Your task to perform on an android device: change alarm snooze length Image 0: 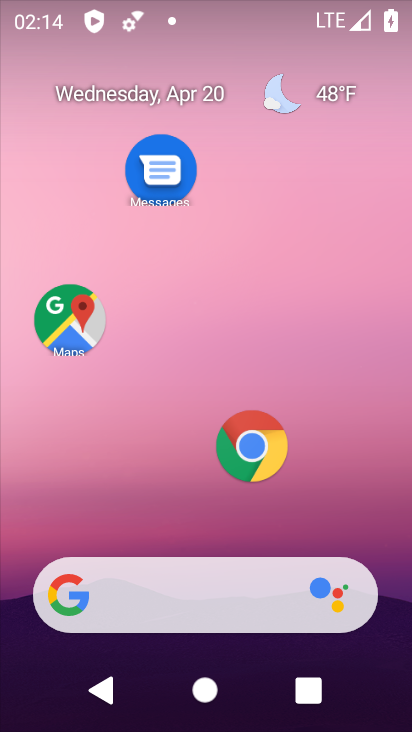
Step 0: drag from (207, 528) to (246, 82)
Your task to perform on an android device: change alarm snooze length Image 1: 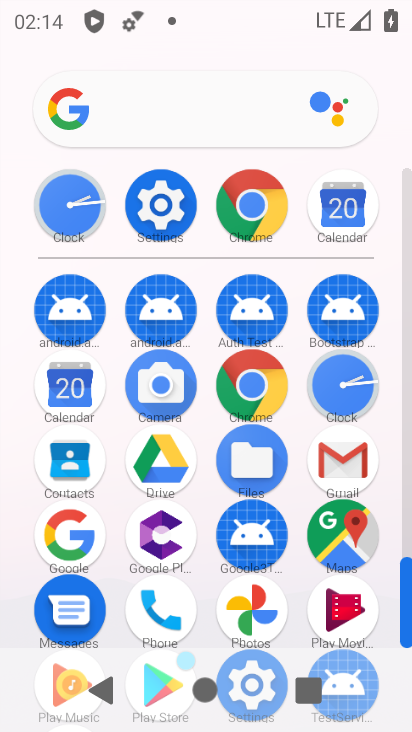
Step 1: click (343, 377)
Your task to perform on an android device: change alarm snooze length Image 2: 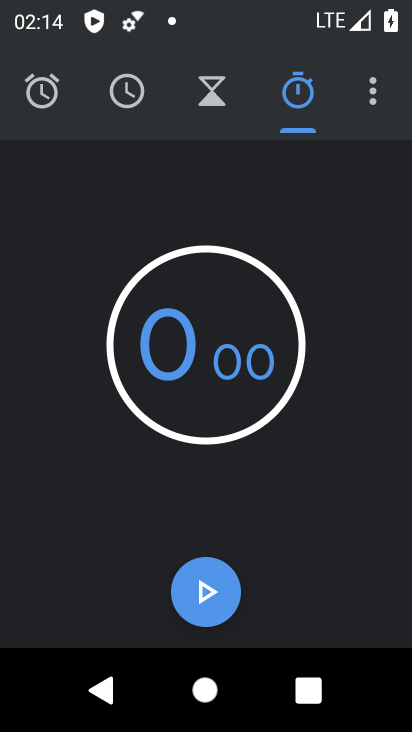
Step 2: click (372, 79)
Your task to perform on an android device: change alarm snooze length Image 3: 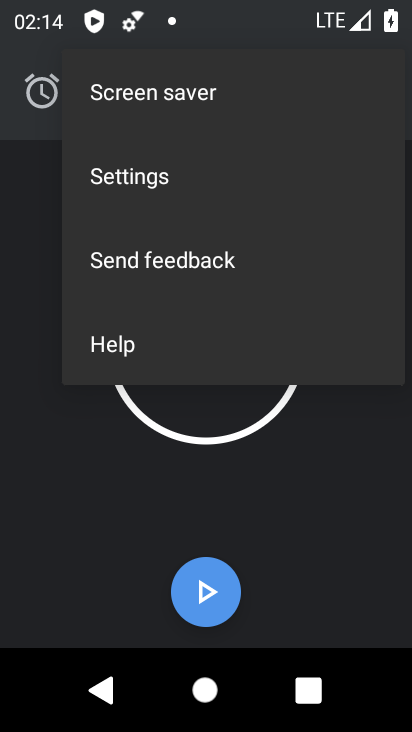
Step 3: click (181, 174)
Your task to perform on an android device: change alarm snooze length Image 4: 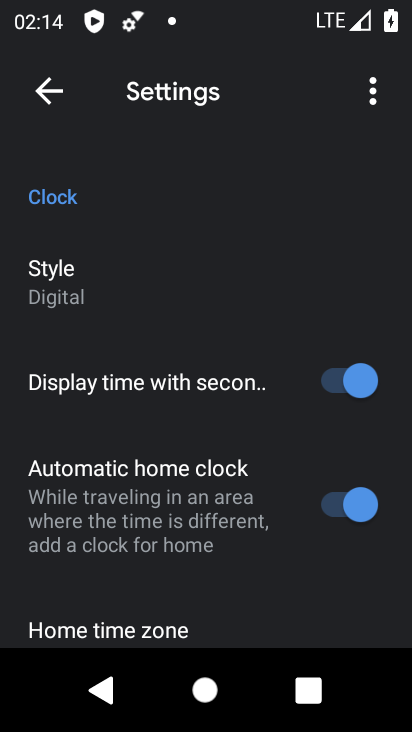
Step 4: drag from (253, 594) to (260, 119)
Your task to perform on an android device: change alarm snooze length Image 5: 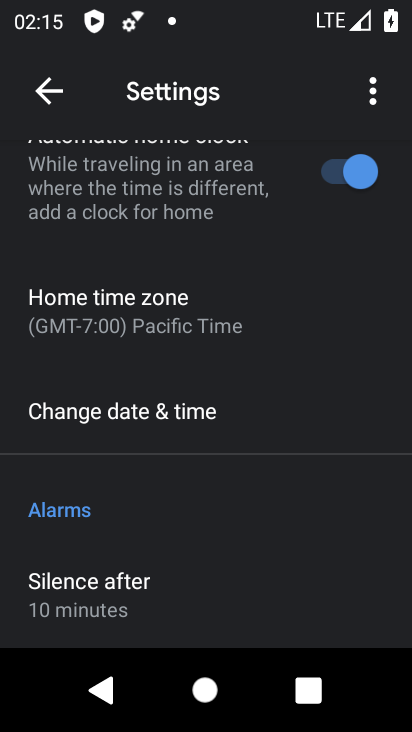
Step 5: drag from (248, 578) to (262, 142)
Your task to perform on an android device: change alarm snooze length Image 6: 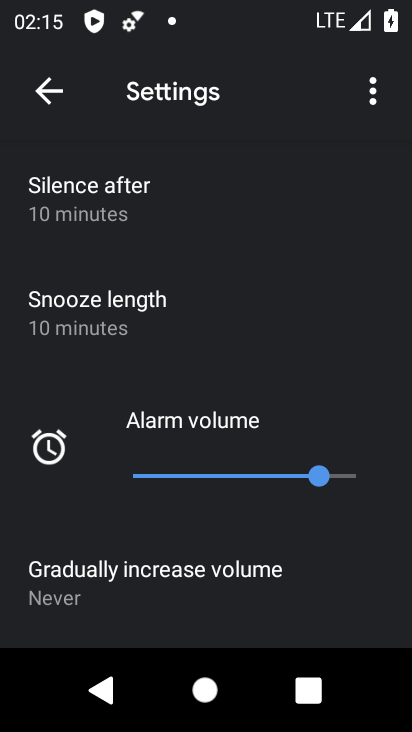
Step 6: click (189, 310)
Your task to perform on an android device: change alarm snooze length Image 7: 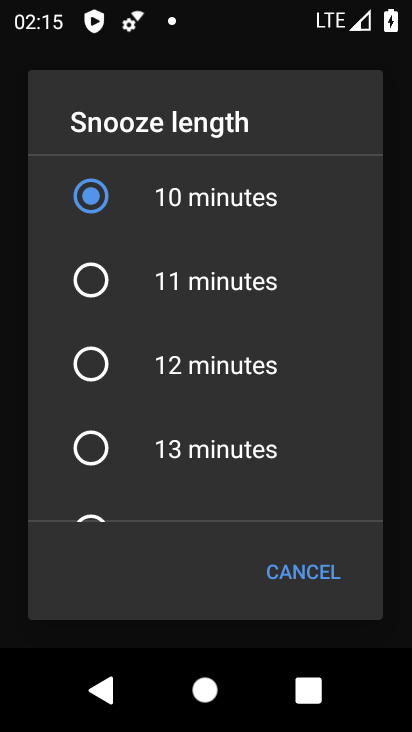
Step 7: click (94, 449)
Your task to perform on an android device: change alarm snooze length Image 8: 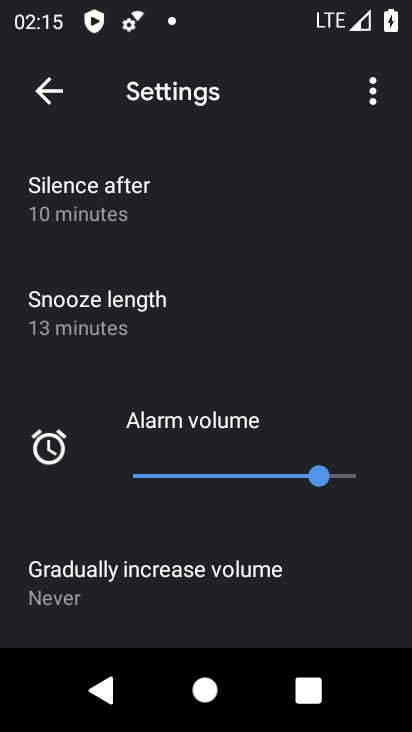
Step 8: task complete